Your task to perform on an android device: Open wifi settings Image 0: 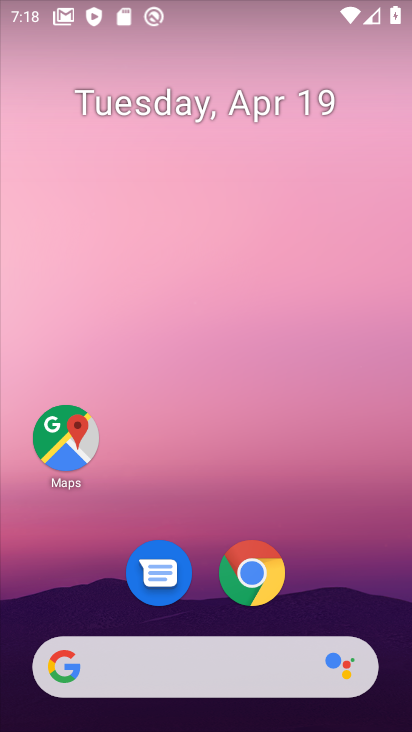
Step 0: drag from (280, 703) to (256, 278)
Your task to perform on an android device: Open wifi settings Image 1: 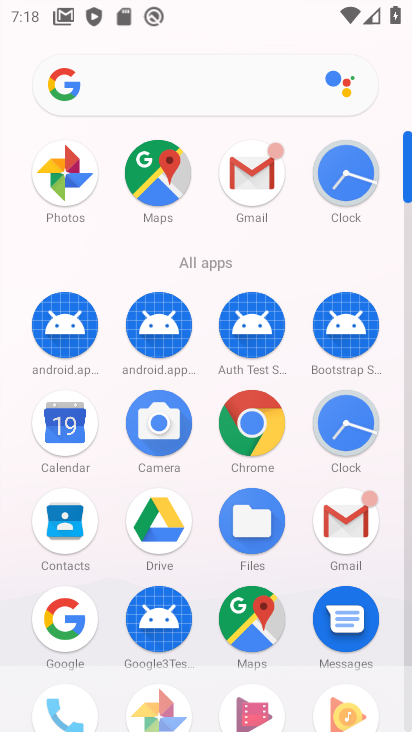
Step 1: drag from (306, 556) to (310, 294)
Your task to perform on an android device: Open wifi settings Image 2: 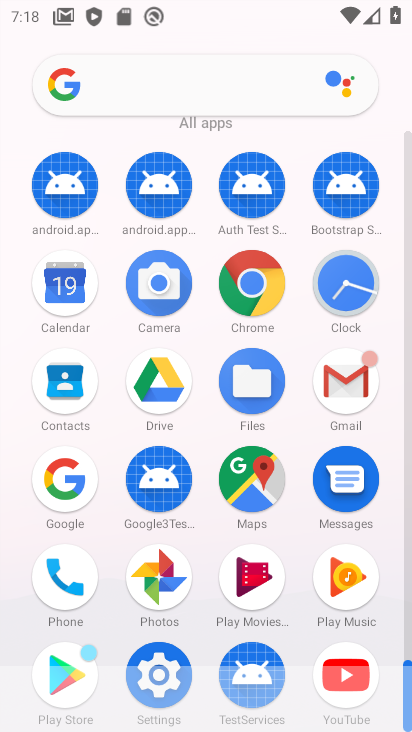
Step 2: click (155, 648)
Your task to perform on an android device: Open wifi settings Image 3: 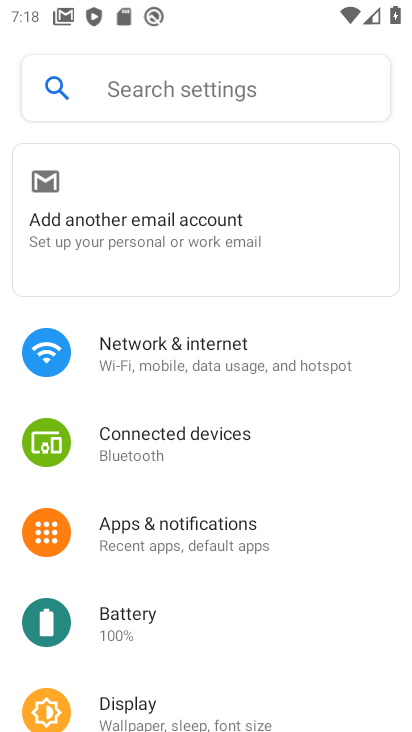
Step 3: click (153, 364)
Your task to perform on an android device: Open wifi settings Image 4: 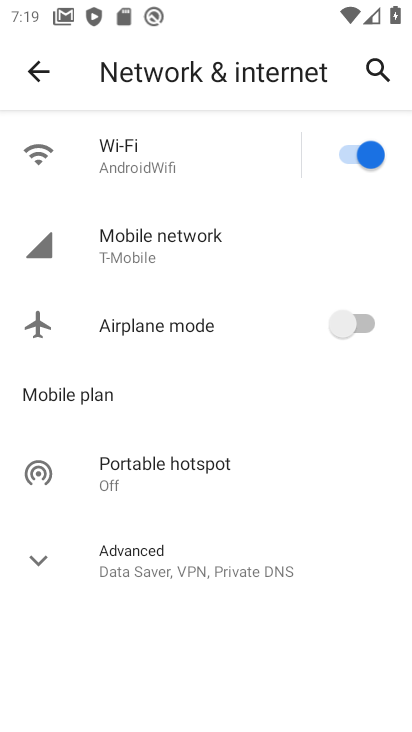
Step 4: click (133, 150)
Your task to perform on an android device: Open wifi settings Image 5: 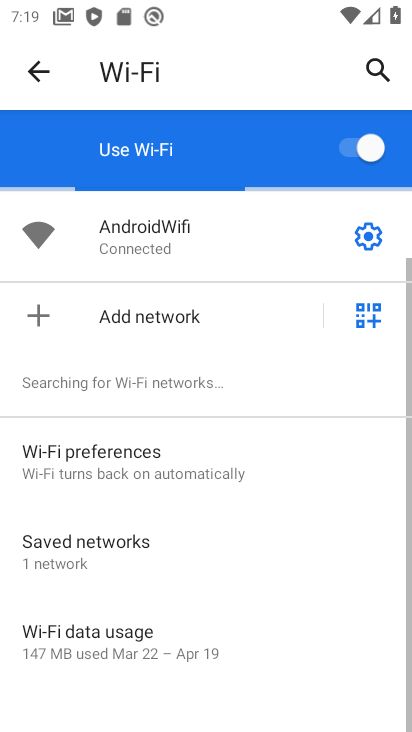
Step 5: task complete